Your task to perform on an android device: Go to Google maps Image 0: 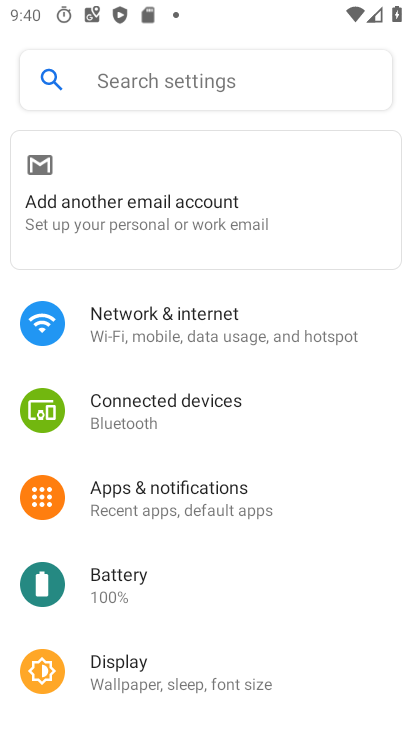
Step 0: press home button
Your task to perform on an android device: Go to Google maps Image 1: 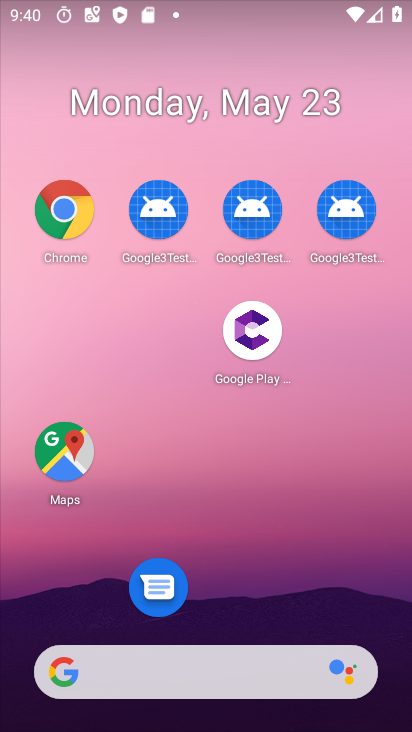
Step 1: click (48, 452)
Your task to perform on an android device: Go to Google maps Image 2: 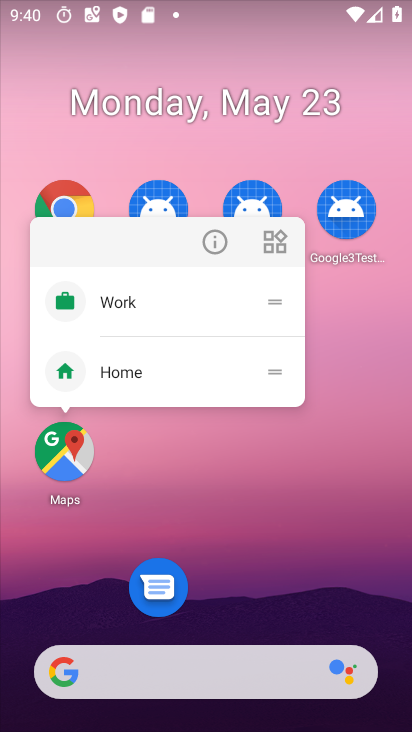
Step 2: click (51, 450)
Your task to perform on an android device: Go to Google maps Image 3: 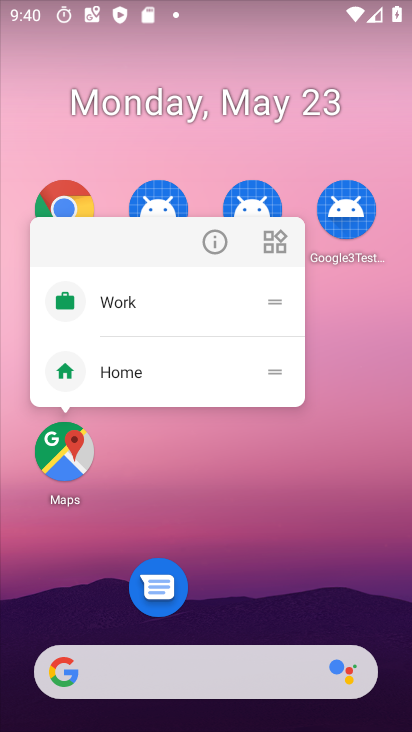
Step 3: click (51, 450)
Your task to perform on an android device: Go to Google maps Image 4: 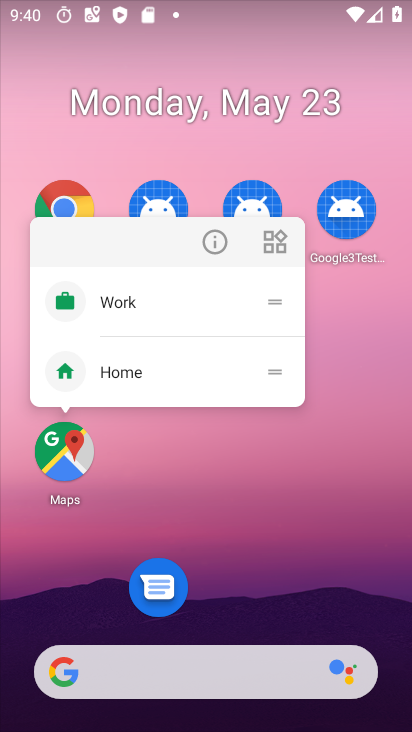
Step 4: click (51, 449)
Your task to perform on an android device: Go to Google maps Image 5: 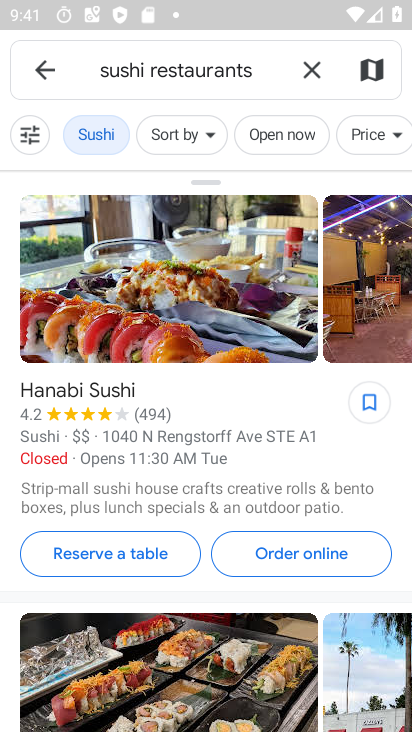
Step 5: task complete